Your task to perform on an android device: open app "VLC for Android" (install if not already installed) and go to login screen Image 0: 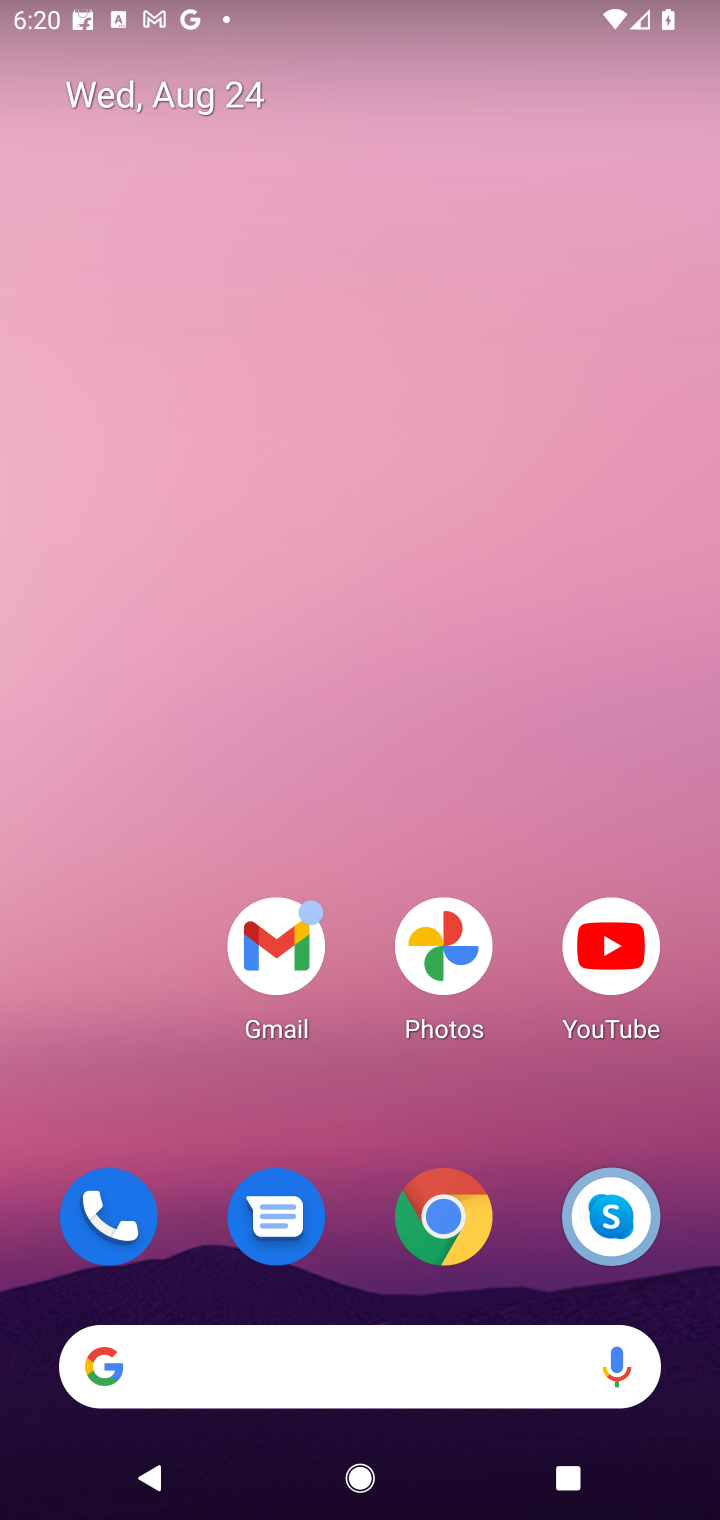
Step 0: drag from (363, 1103) to (407, 315)
Your task to perform on an android device: open app "VLC for Android" (install if not already installed) and go to login screen Image 1: 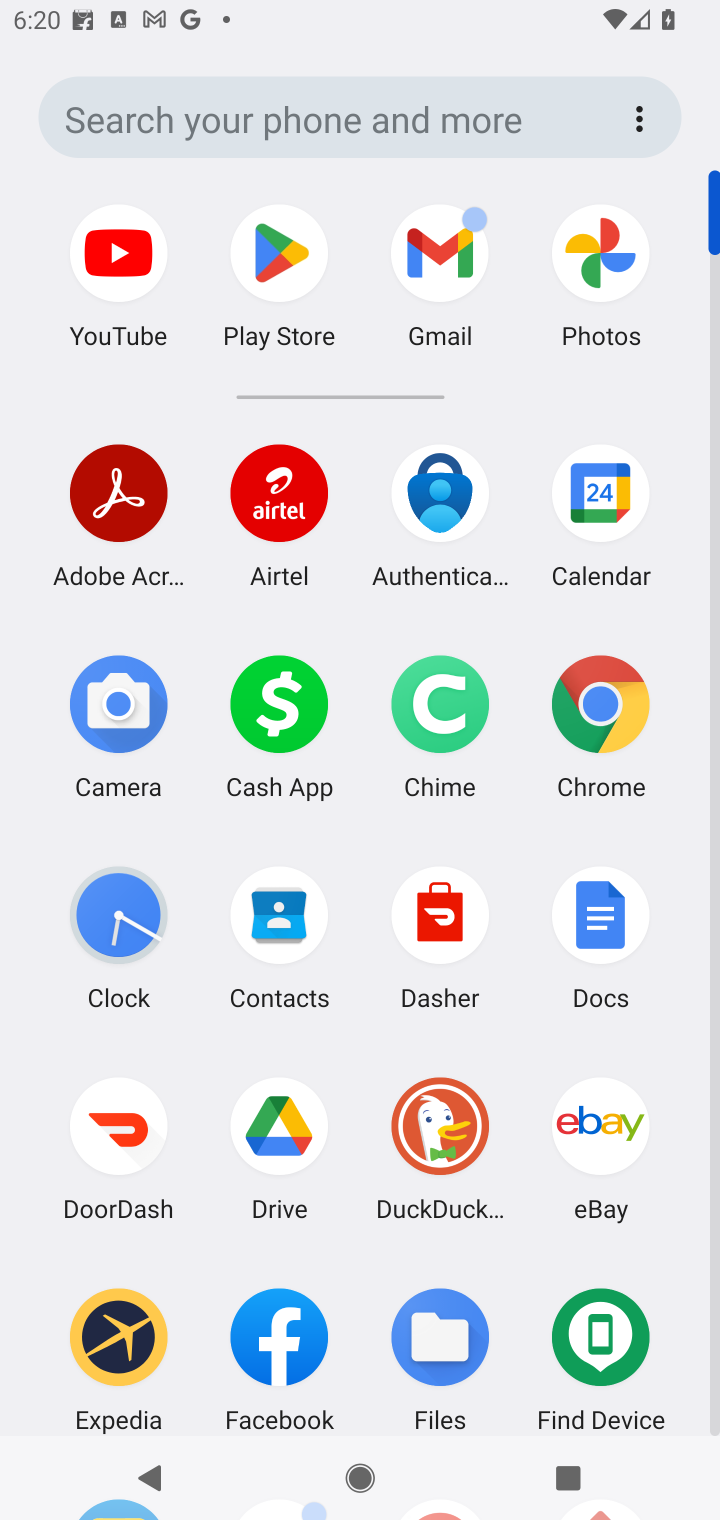
Step 1: click (297, 240)
Your task to perform on an android device: open app "VLC for Android" (install if not already installed) and go to login screen Image 2: 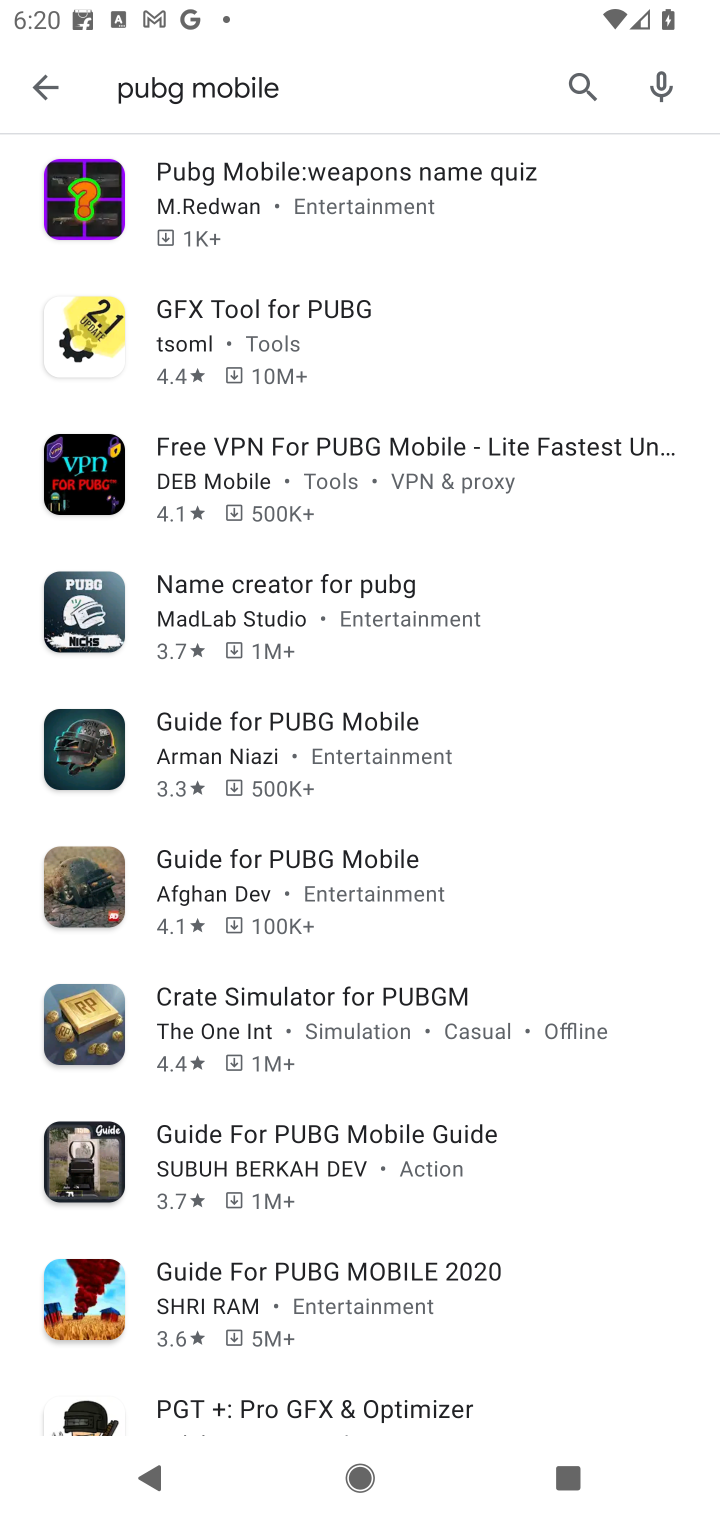
Step 2: click (567, 91)
Your task to perform on an android device: open app "VLC for Android" (install if not already installed) and go to login screen Image 3: 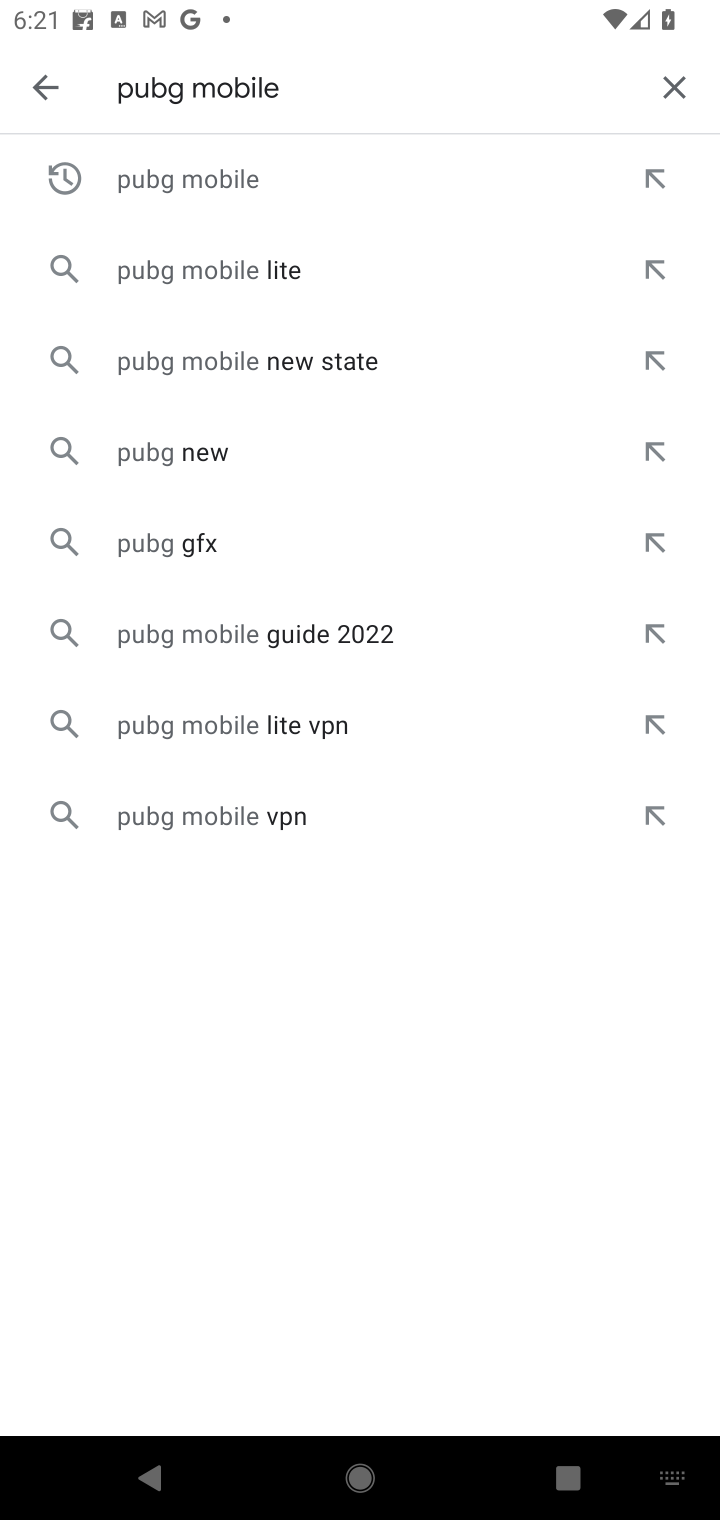
Step 3: click (685, 69)
Your task to perform on an android device: open app "VLC for Android" (install if not already installed) and go to login screen Image 4: 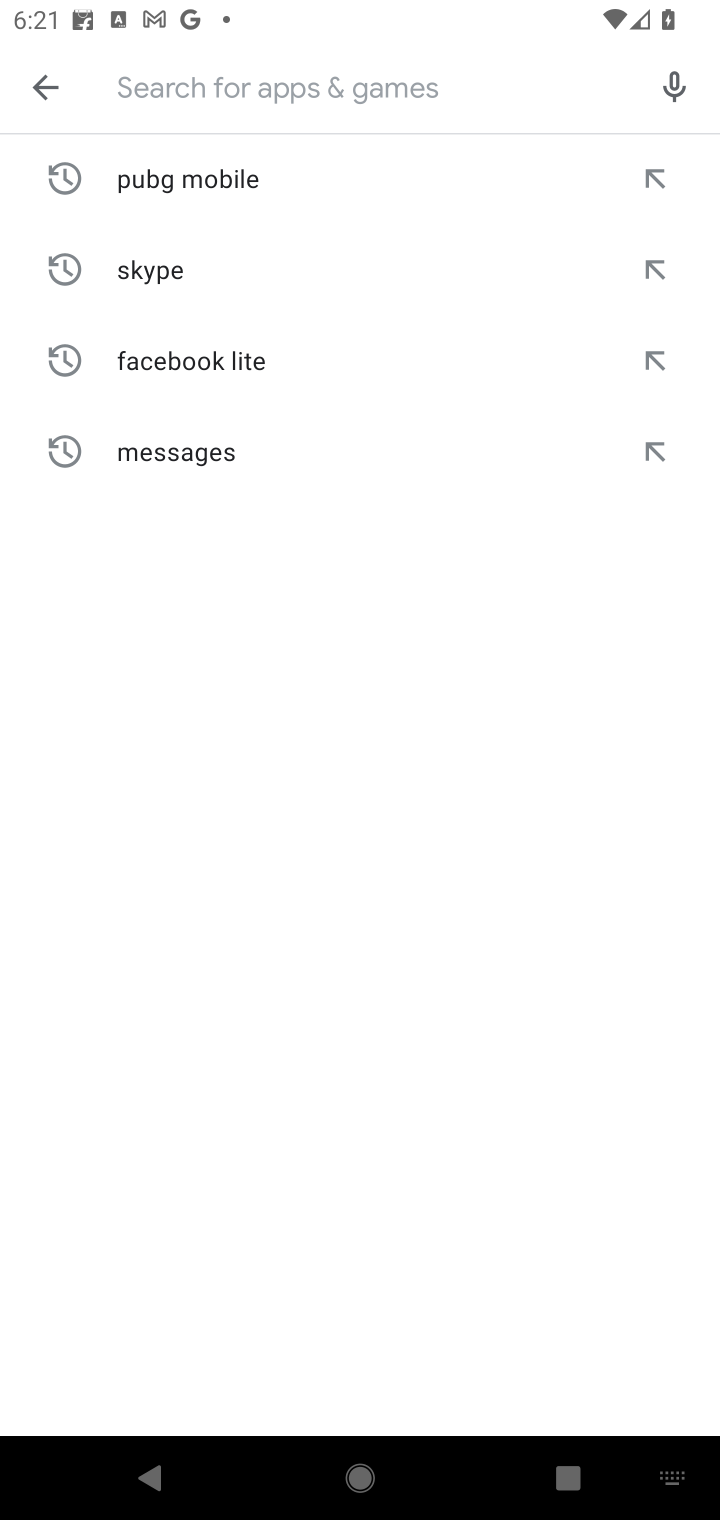
Step 4: type "VLC for Android"
Your task to perform on an android device: open app "VLC for Android" (install if not already installed) and go to login screen Image 5: 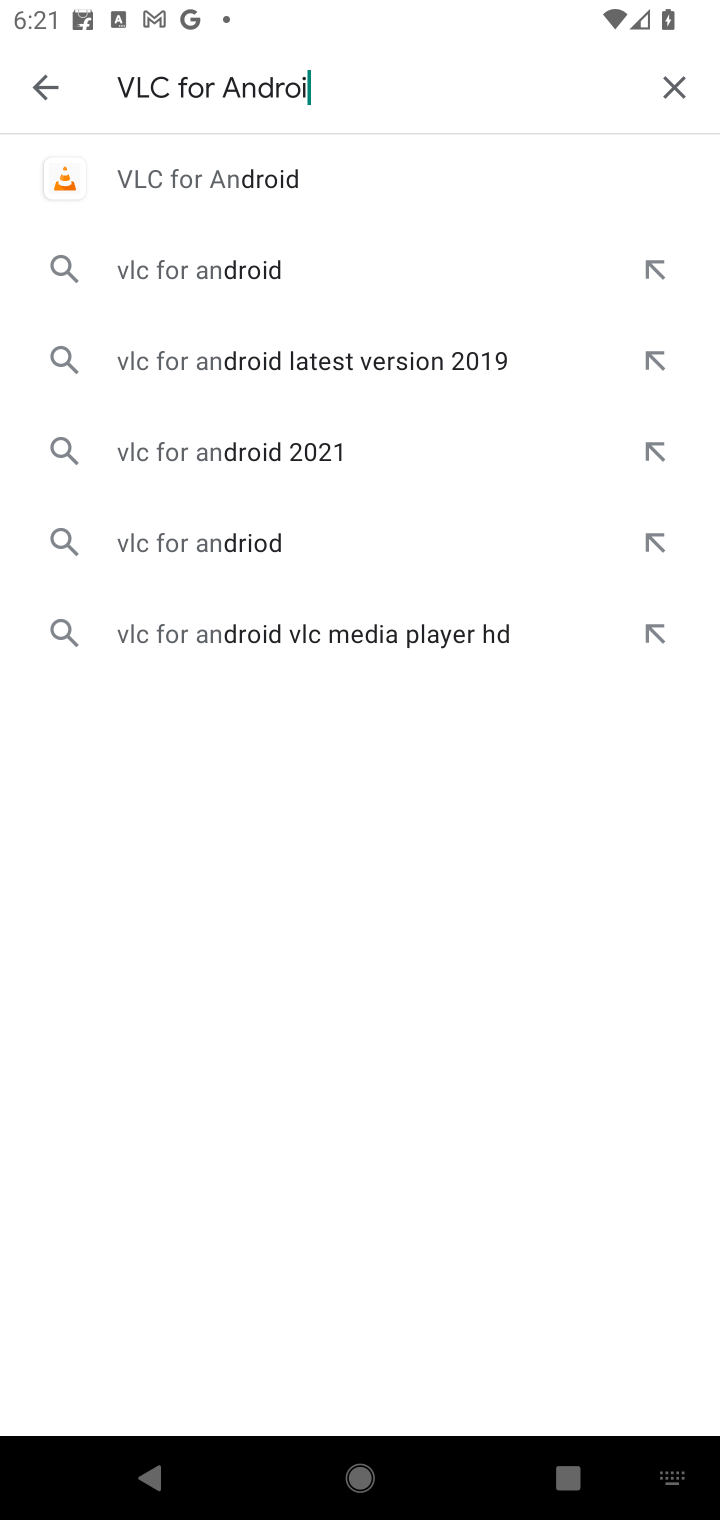
Step 5: type ""
Your task to perform on an android device: open app "VLC for Android" (install if not already installed) and go to login screen Image 6: 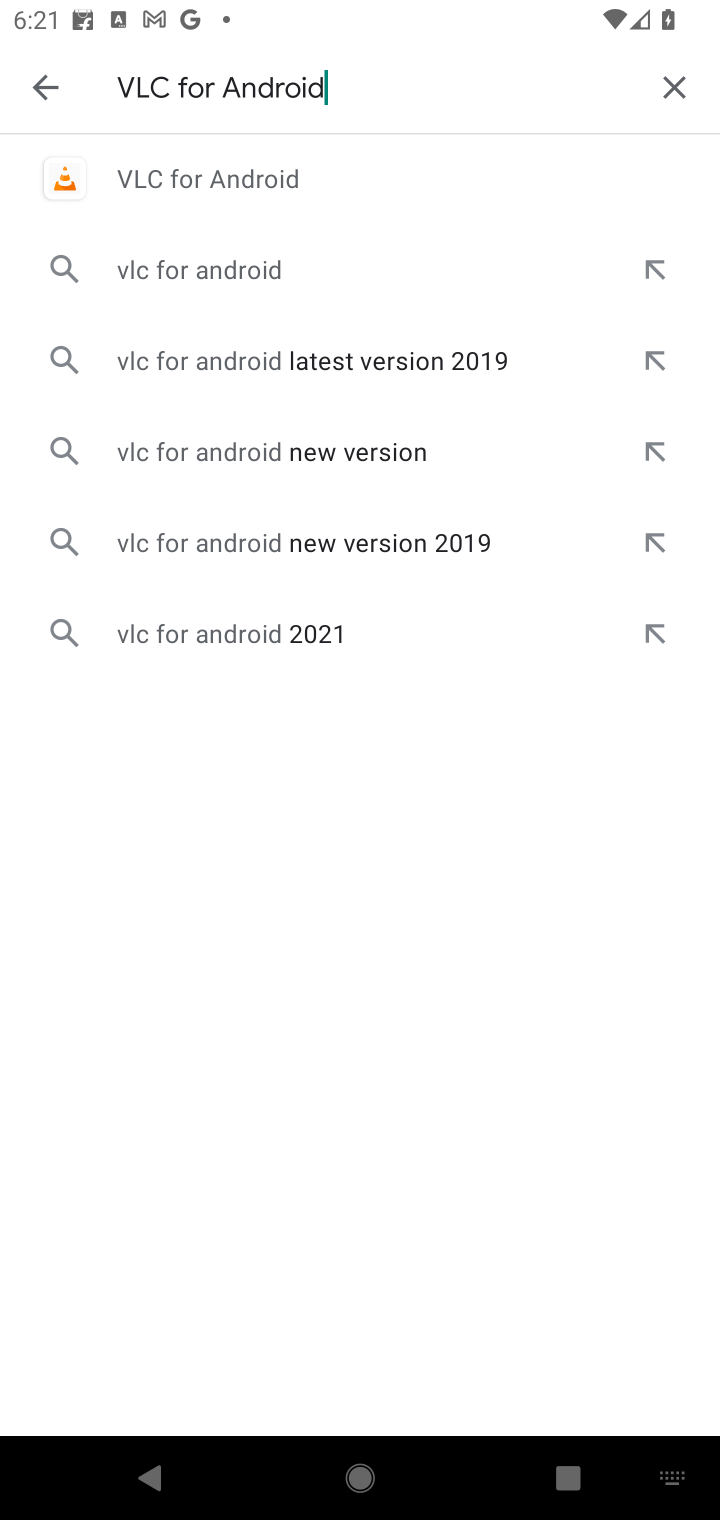
Step 6: click (319, 164)
Your task to perform on an android device: open app "VLC for Android" (install if not already installed) and go to login screen Image 7: 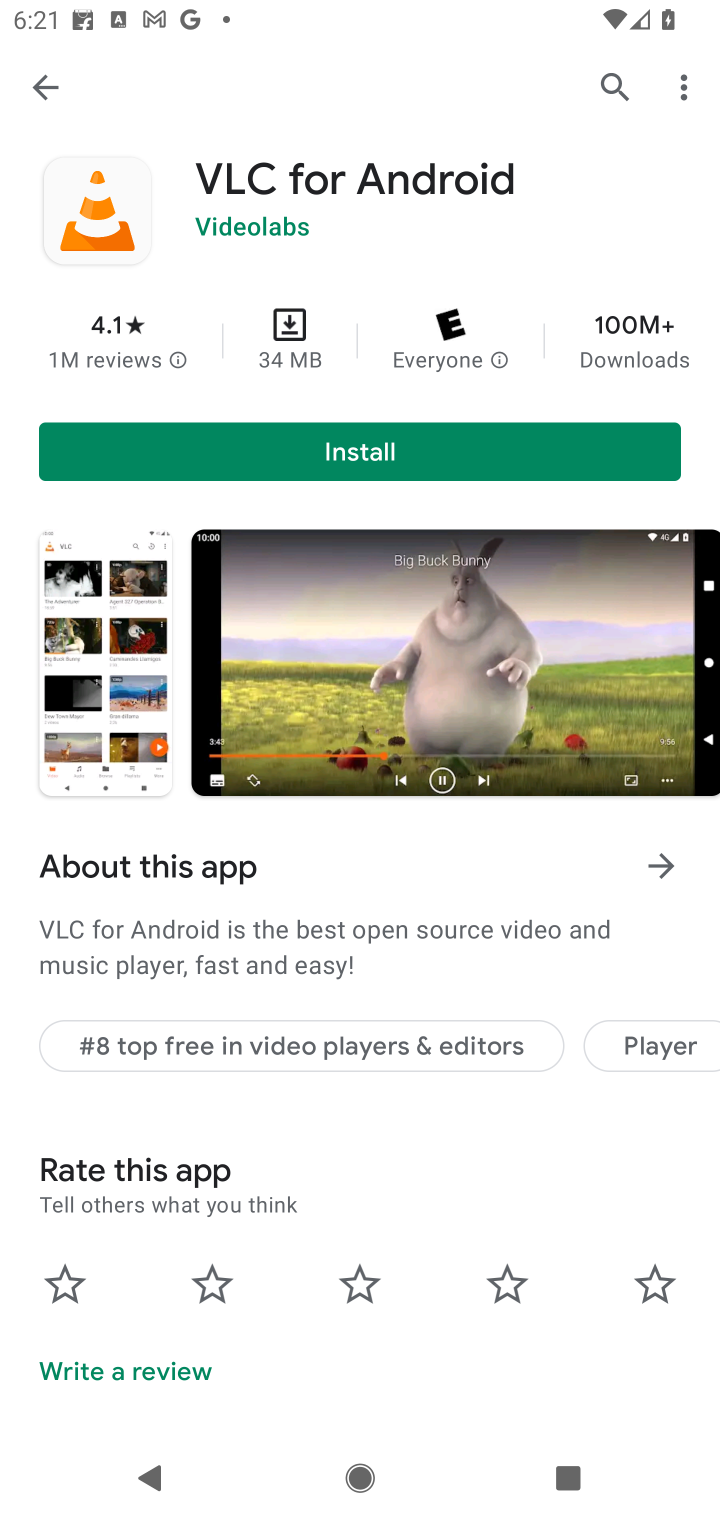
Step 7: click (456, 466)
Your task to perform on an android device: open app "VLC for Android" (install if not already installed) and go to login screen Image 8: 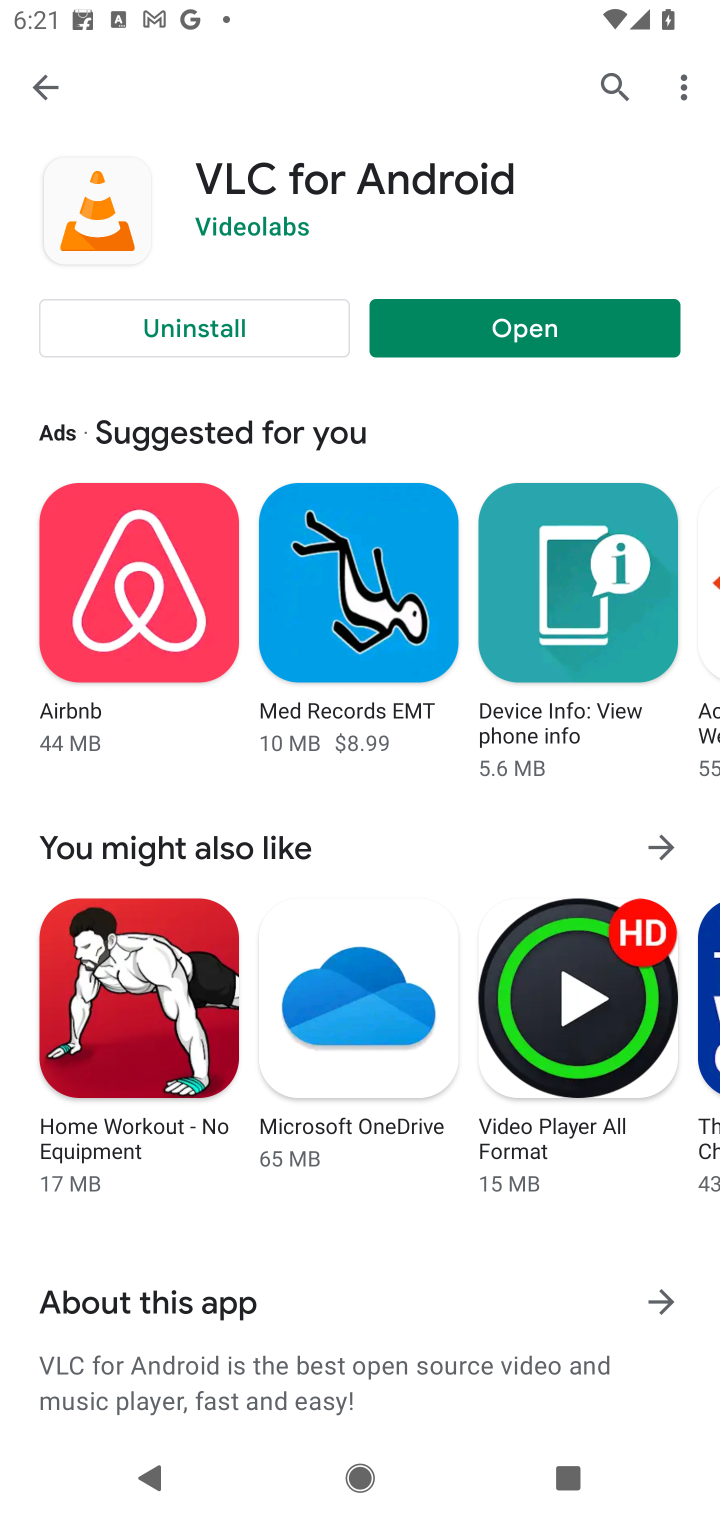
Step 8: click (531, 341)
Your task to perform on an android device: open app "VLC for Android" (install if not already installed) and go to login screen Image 9: 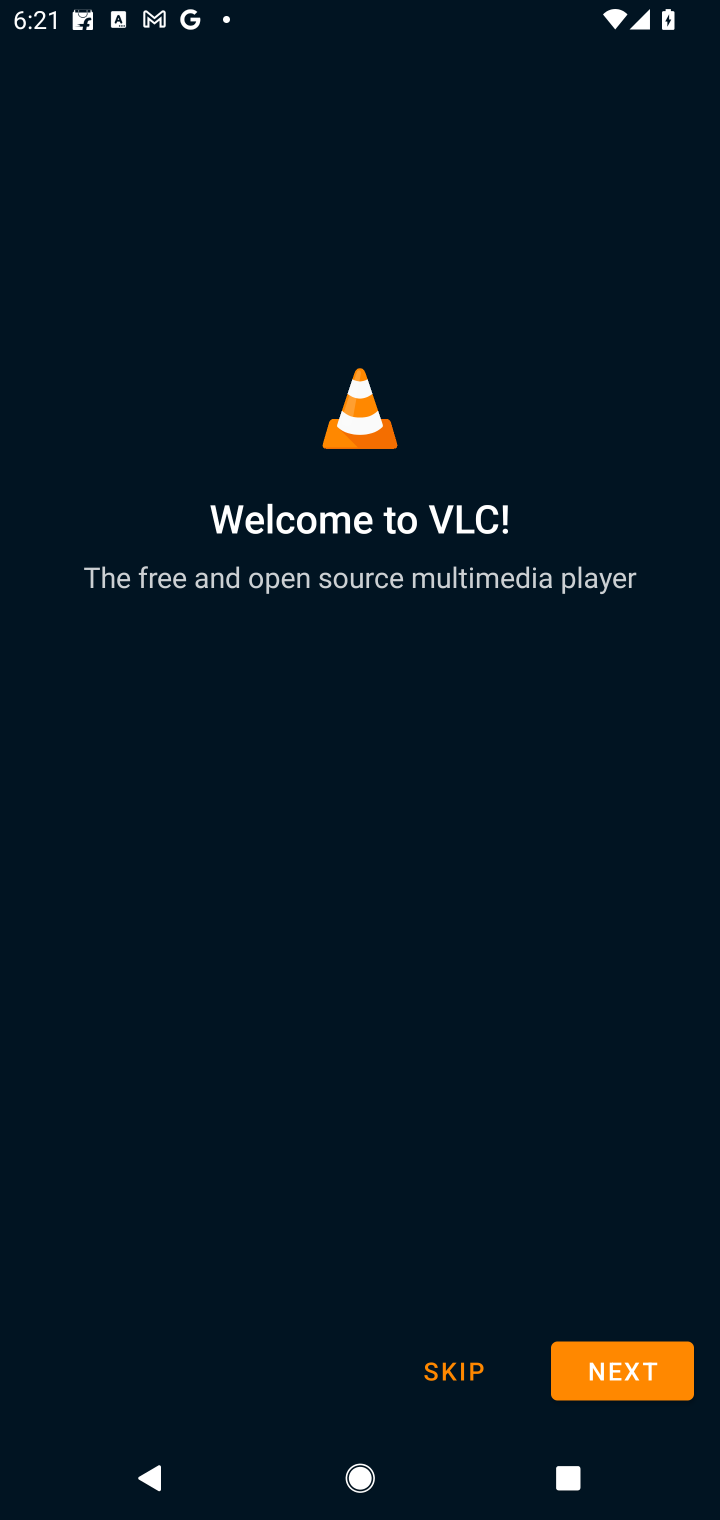
Step 9: task complete